Your task to perform on an android device: turn notification dots on Image 0: 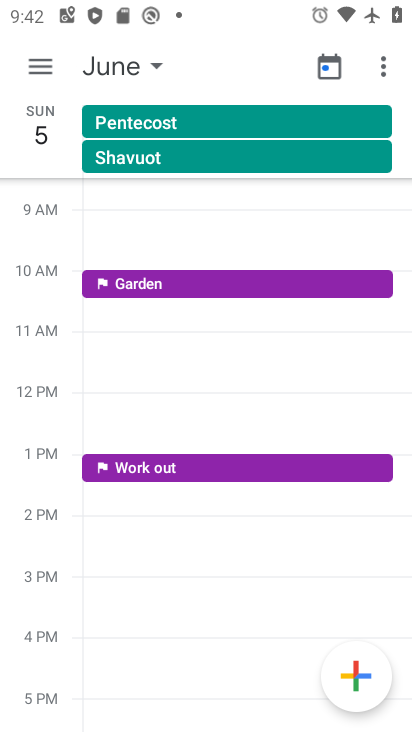
Step 0: press home button
Your task to perform on an android device: turn notification dots on Image 1: 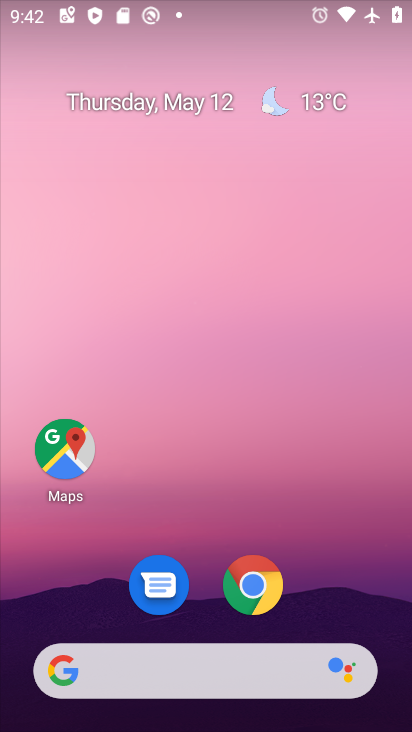
Step 1: drag from (303, 577) to (218, 68)
Your task to perform on an android device: turn notification dots on Image 2: 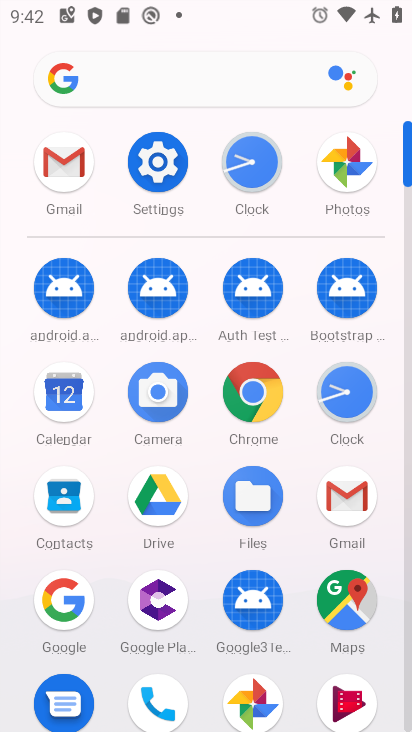
Step 2: click (167, 173)
Your task to perform on an android device: turn notification dots on Image 3: 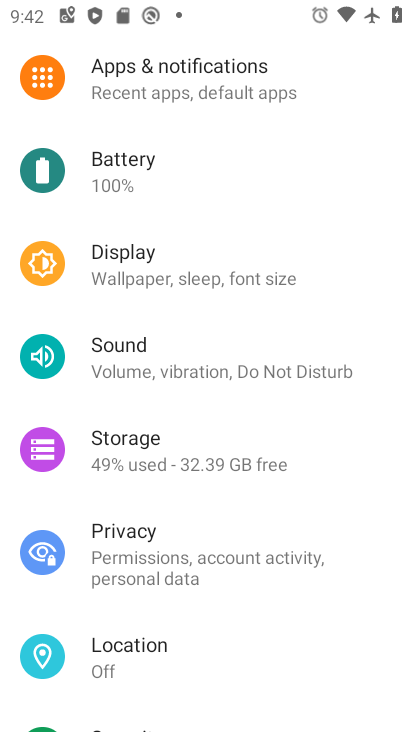
Step 3: click (193, 82)
Your task to perform on an android device: turn notification dots on Image 4: 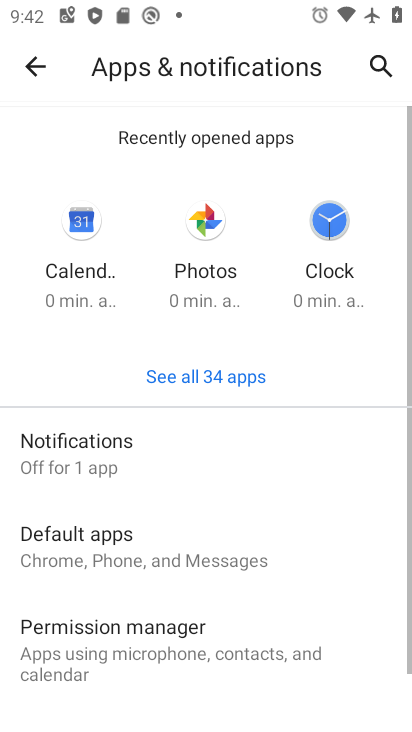
Step 4: click (201, 446)
Your task to perform on an android device: turn notification dots on Image 5: 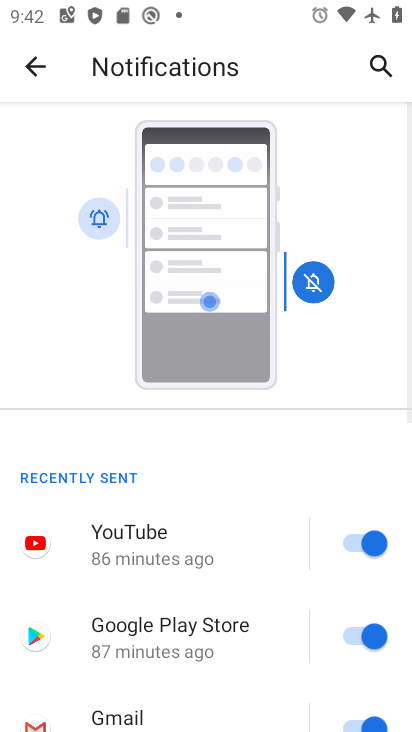
Step 5: drag from (190, 617) to (187, 61)
Your task to perform on an android device: turn notification dots on Image 6: 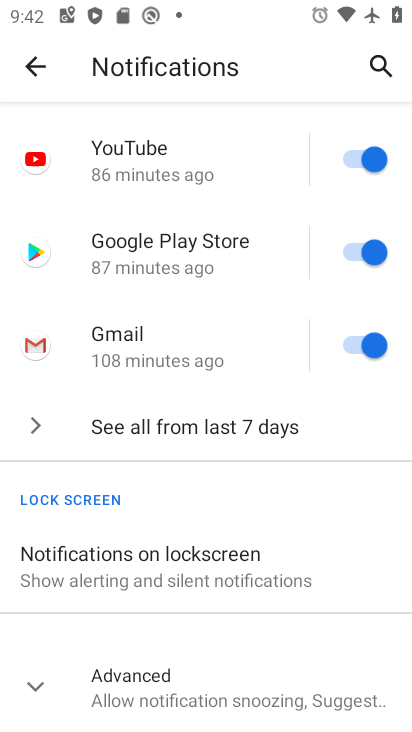
Step 6: click (34, 686)
Your task to perform on an android device: turn notification dots on Image 7: 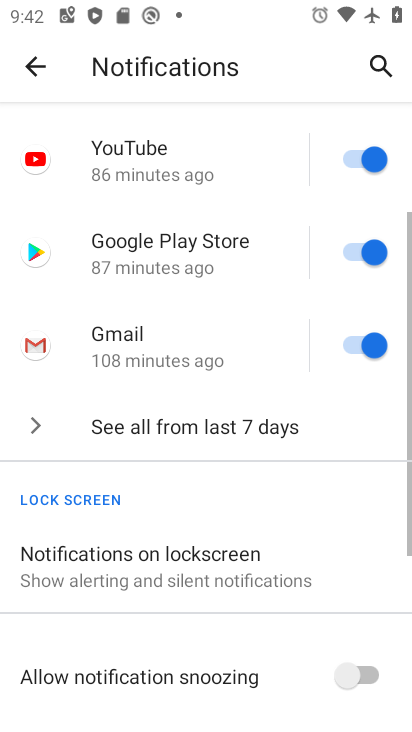
Step 7: task complete